Your task to perform on an android device: set an alarm Image 0: 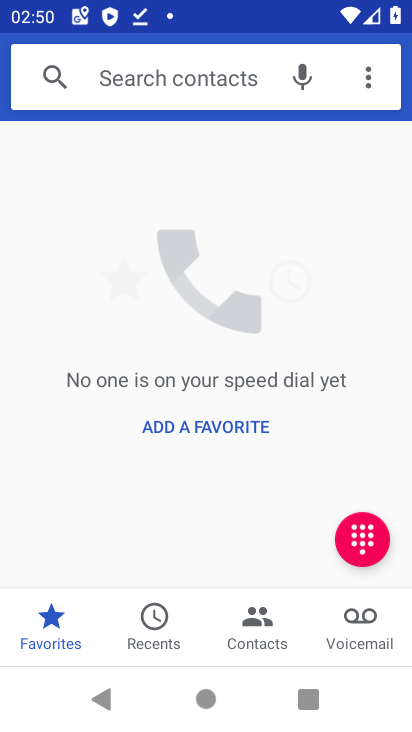
Step 0: press home button
Your task to perform on an android device: set an alarm Image 1: 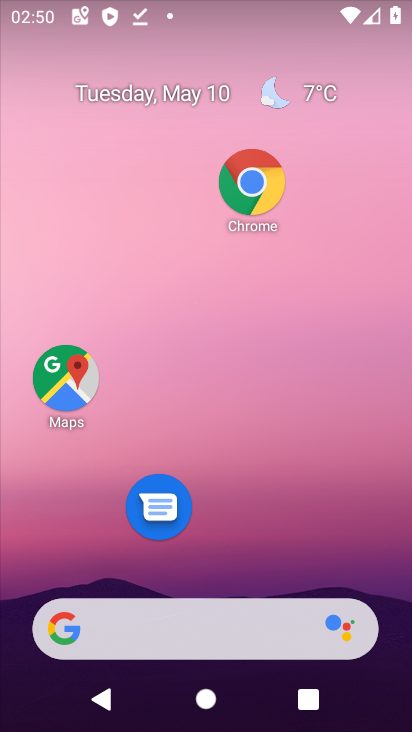
Step 1: drag from (296, 414) to (233, 137)
Your task to perform on an android device: set an alarm Image 2: 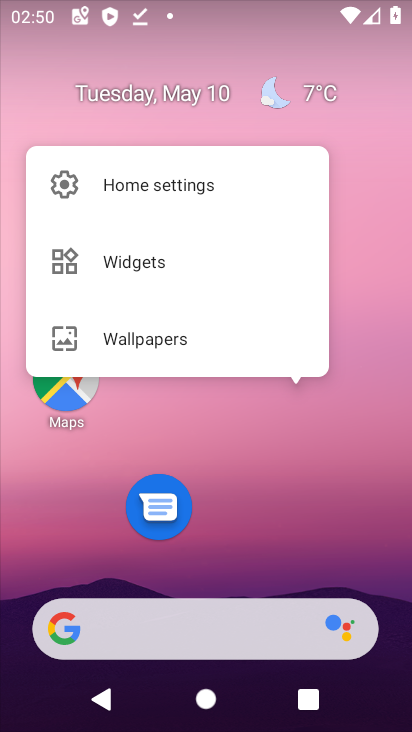
Step 2: click (263, 488)
Your task to perform on an android device: set an alarm Image 3: 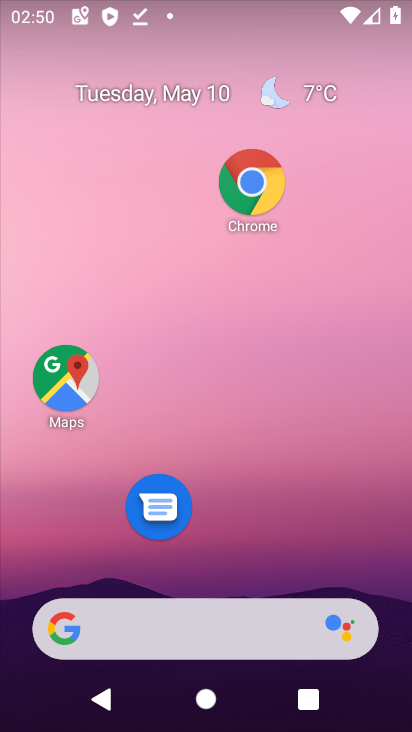
Step 3: drag from (263, 488) to (214, 45)
Your task to perform on an android device: set an alarm Image 4: 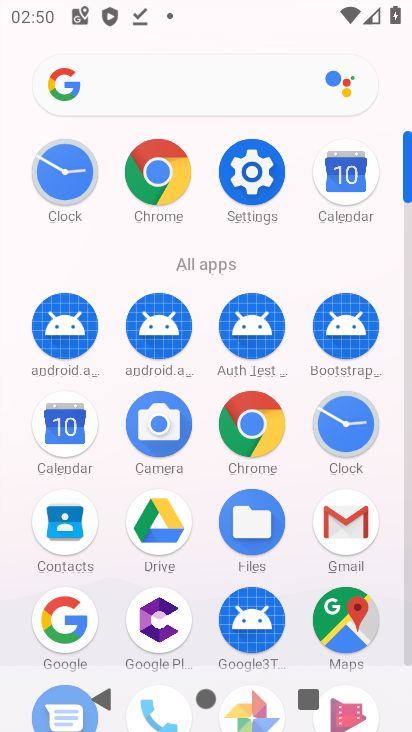
Step 4: click (78, 199)
Your task to perform on an android device: set an alarm Image 5: 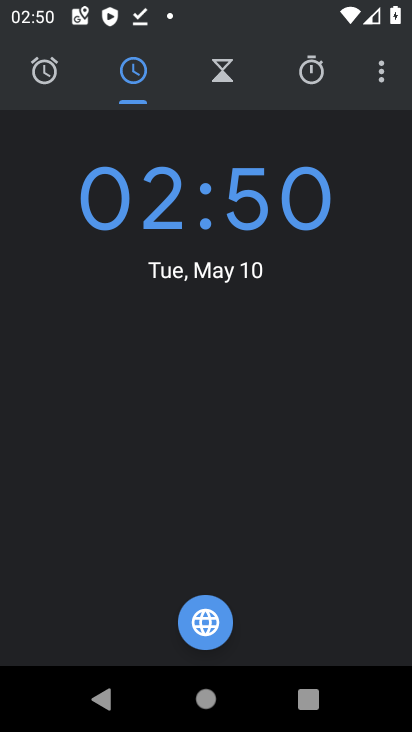
Step 5: click (37, 73)
Your task to perform on an android device: set an alarm Image 6: 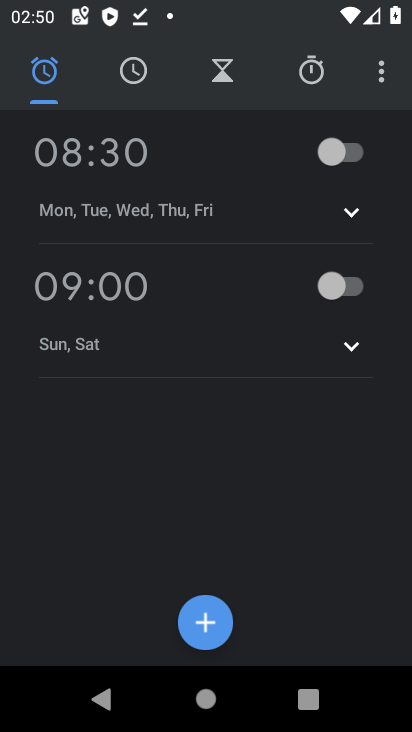
Step 6: click (358, 175)
Your task to perform on an android device: set an alarm Image 7: 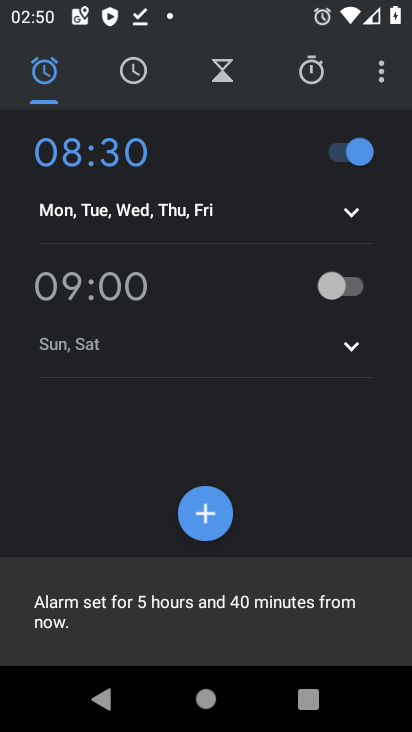
Step 7: task complete